Your task to perform on an android device: set the stopwatch Image 0: 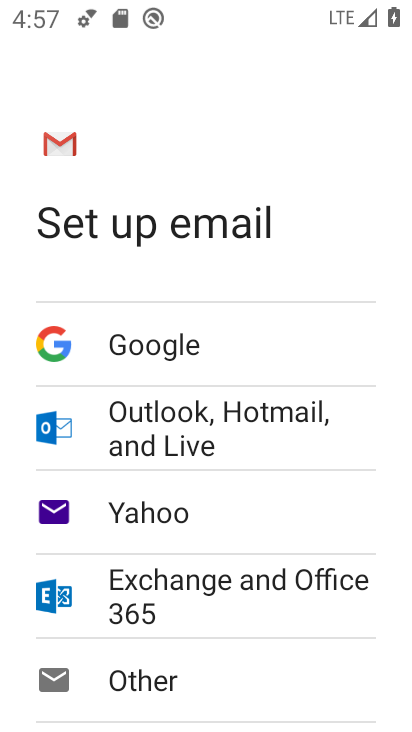
Step 0: press home button
Your task to perform on an android device: set the stopwatch Image 1: 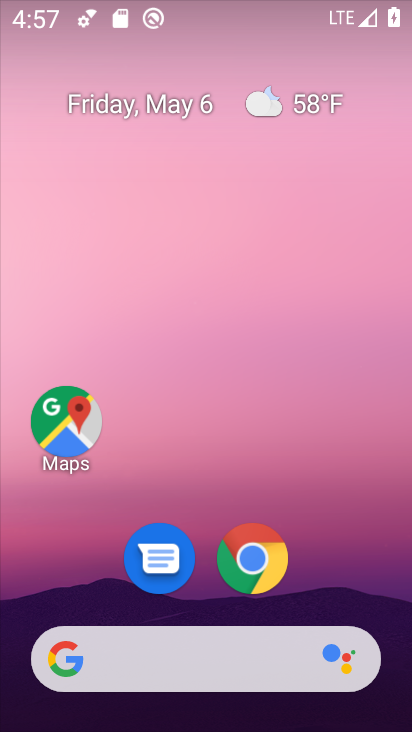
Step 1: drag from (295, 600) to (290, 43)
Your task to perform on an android device: set the stopwatch Image 2: 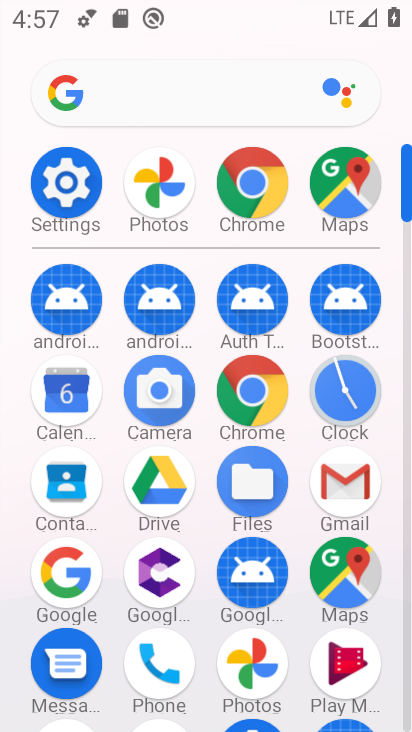
Step 2: click (355, 397)
Your task to perform on an android device: set the stopwatch Image 3: 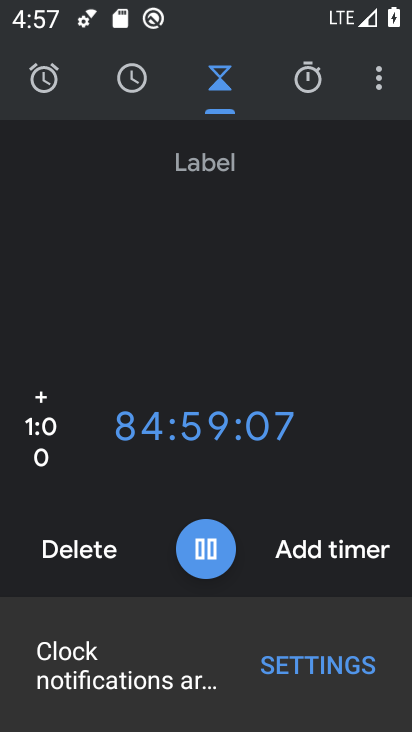
Step 3: click (304, 91)
Your task to perform on an android device: set the stopwatch Image 4: 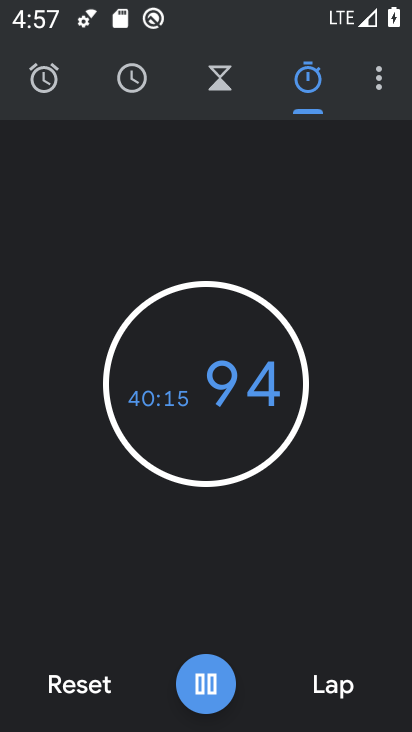
Step 4: click (86, 679)
Your task to perform on an android device: set the stopwatch Image 5: 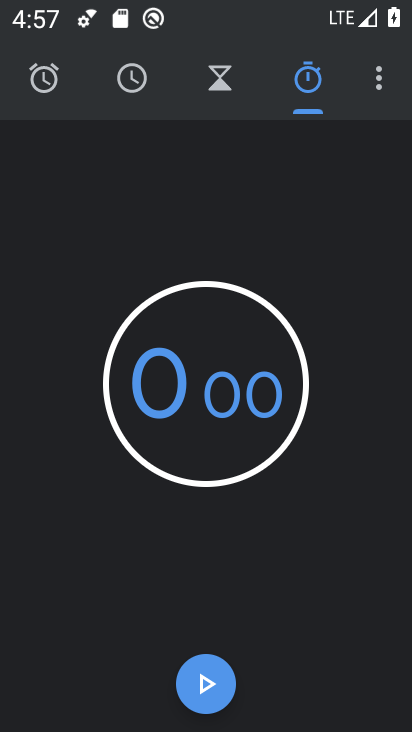
Step 5: click (211, 680)
Your task to perform on an android device: set the stopwatch Image 6: 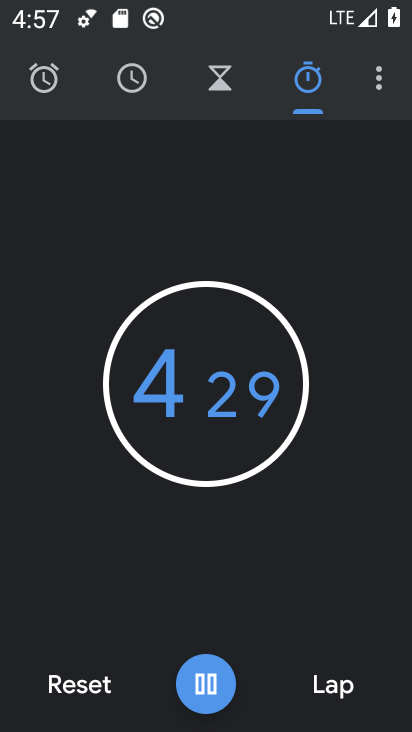
Step 6: task complete